Your task to perform on an android device: open a bookmark in the chrome app Image 0: 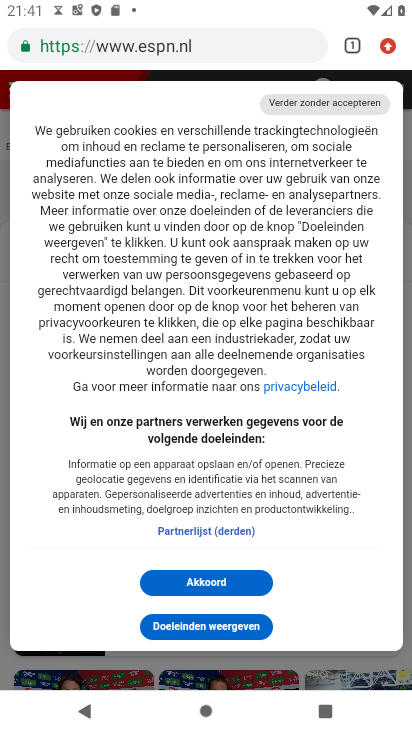
Step 0: press home button
Your task to perform on an android device: open a bookmark in the chrome app Image 1: 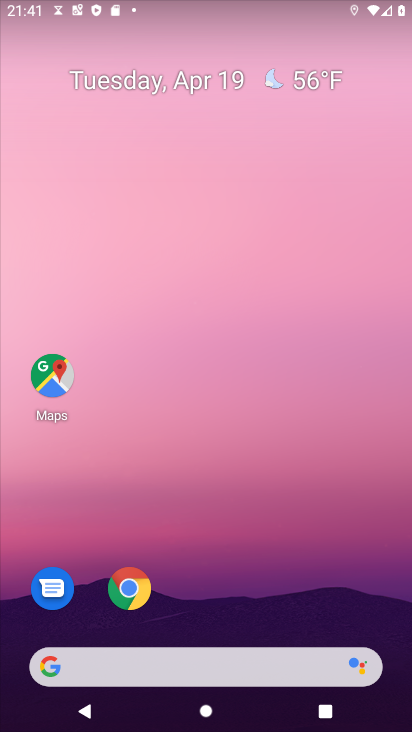
Step 1: click (130, 589)
Your task to perform on an android device: open a bookmark in the chrome app Image 2: 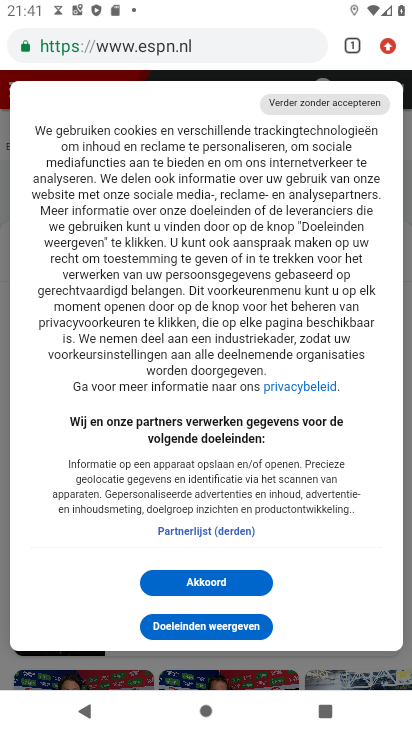
Step 2: click (388, 48)
Your task to perform on an android device: open a bookmark in the chrome app Image 3: 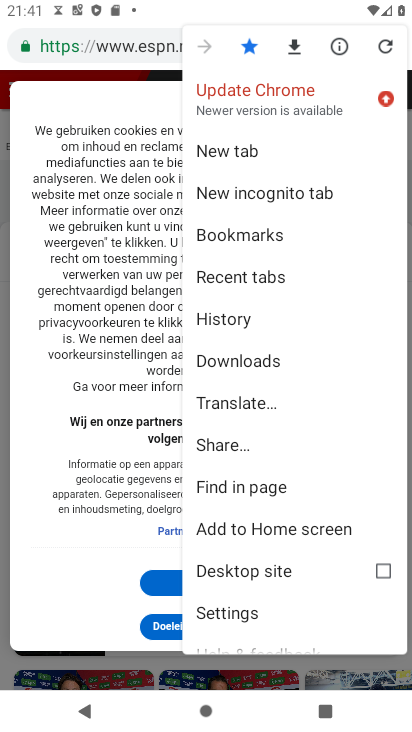
Step 3: click (258, 233)
Your task to perform on an android device: open a bookmark in the chrome app Image 4: 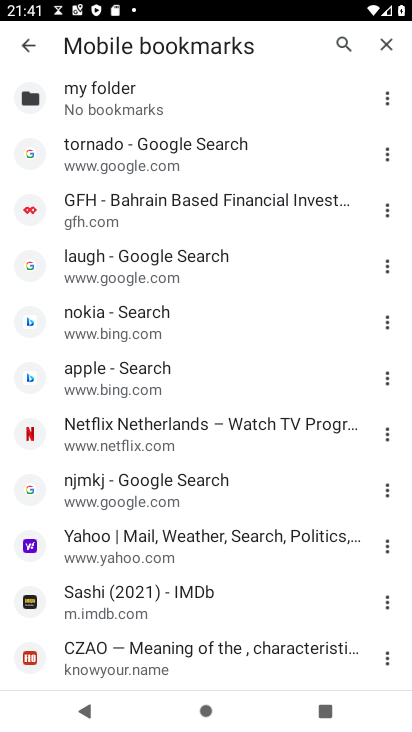
Step 4: task complete